Your task to perform on an android device: What's on my calendar today? Image 0: 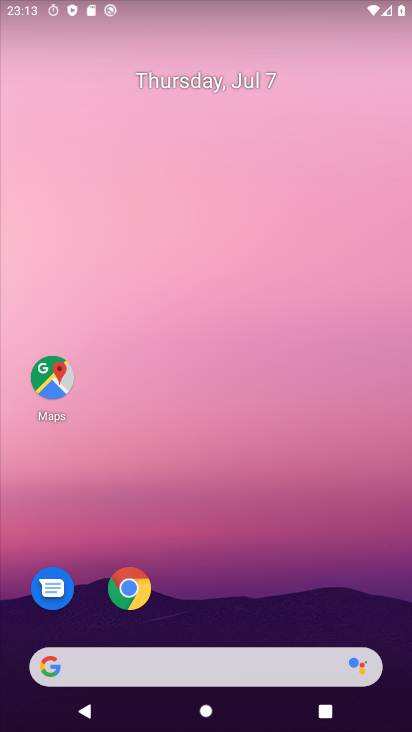
Step 0: drag from (325, 567) to (341, 79)
Your task to perform on an android device: What's on my calendar today? Image 1: 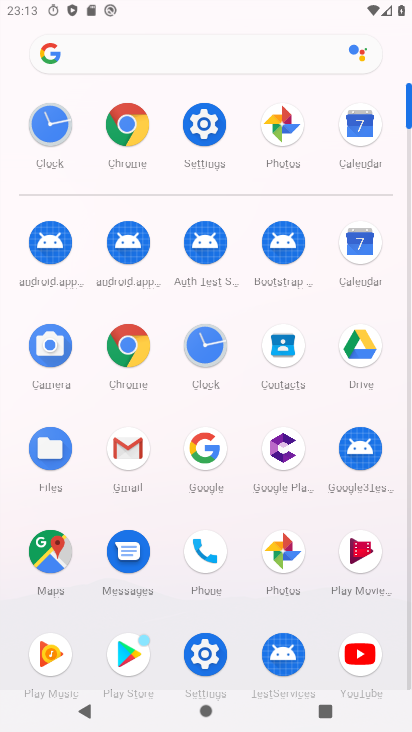
Step 1: click (362, 234)
Your task to perform on an android device: What's on my calendar today? Image 2: 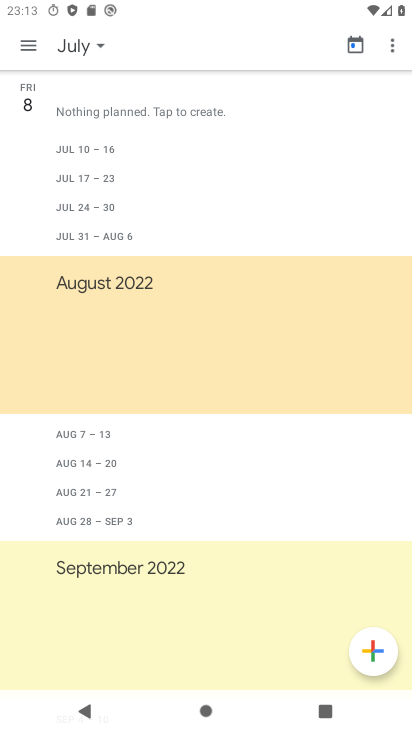
Step 2: click (83, 39)
Your task to perform on an android device: What's on my calendar today? Image 3: 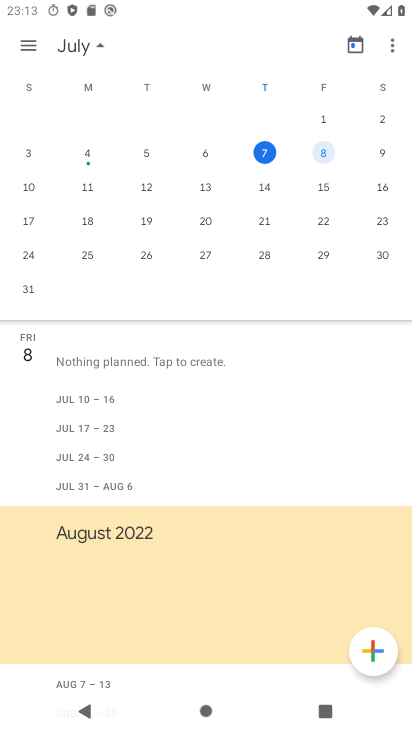
Step 3: click (264, 154)
Your task to perform on an android device: What's on my calendar today? Image 4: 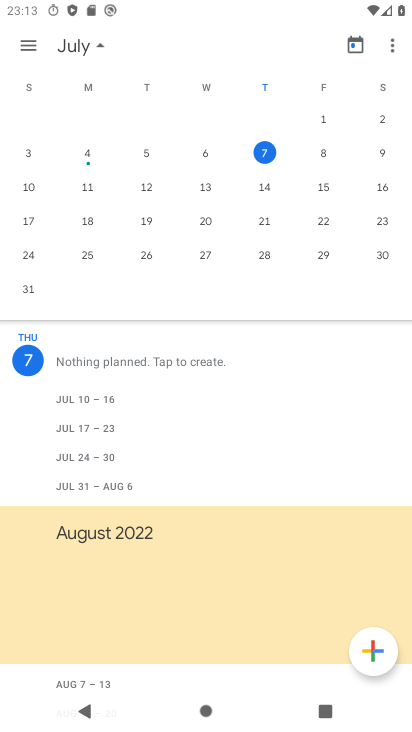
Step 4: click (264, 152)
Your task to perform on an android device: What's on my calendar today? Image 5: 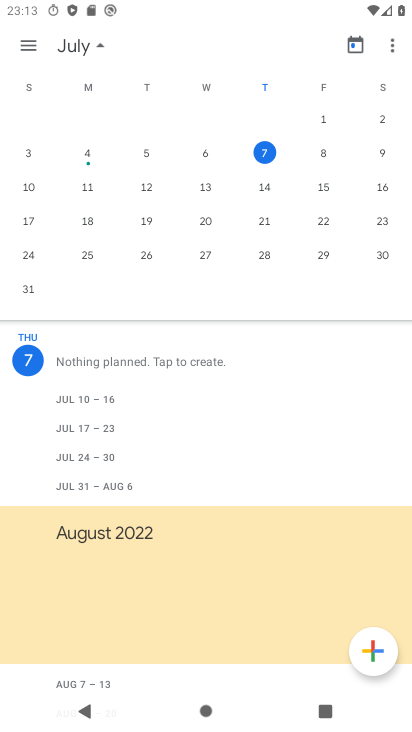
Step 5: task complete